Your task to perform on an android device: Open battery settings Image 0: 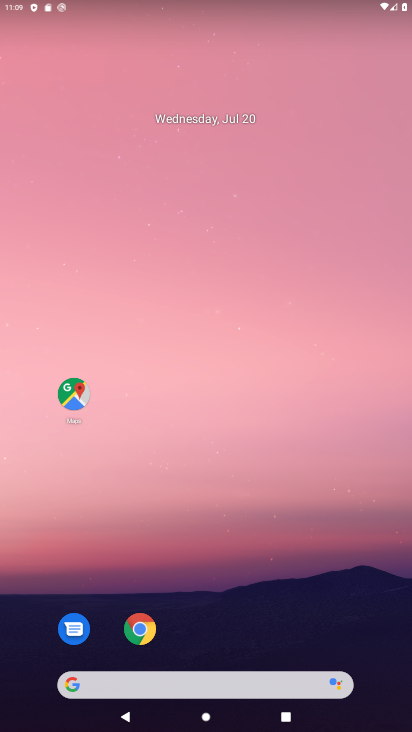
Step 0: drag from (224, 668) to (231, 9)
Your task to perform on an android device: Open battery settings Image 1: 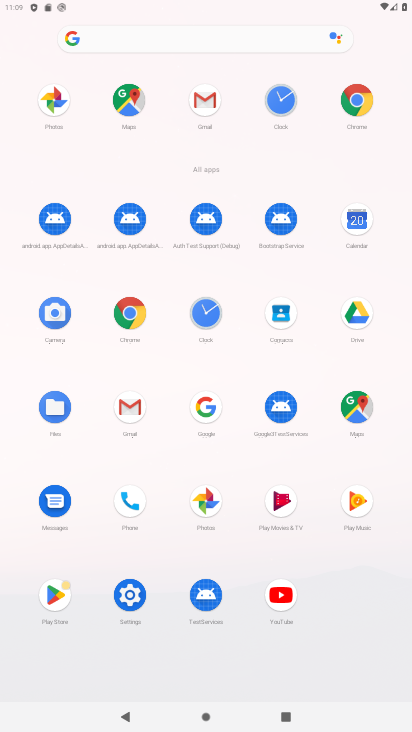
Step 1: click (129, 600)
Your task to perform on an android device: Open battery settings Image 2: 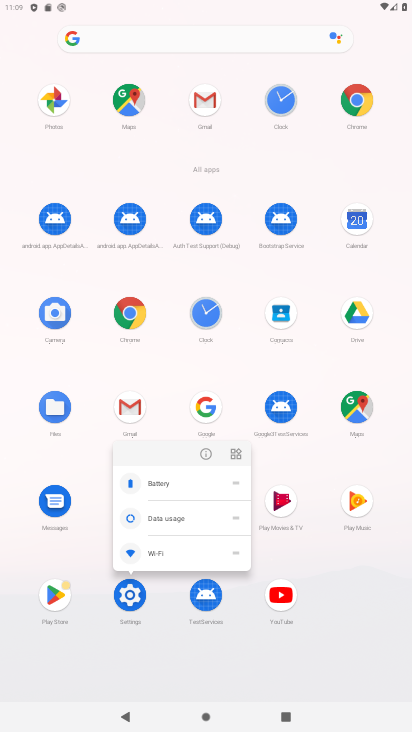
Step 2: click (129, 600)
Your task to perform on an android device: Open battery settings Image 3: 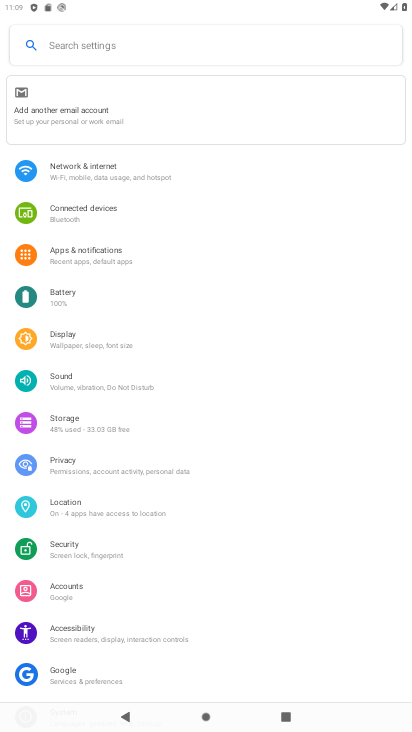
Step 3: click (73, 284)
Your task to perform on an android device: Open battery settings Image 4: 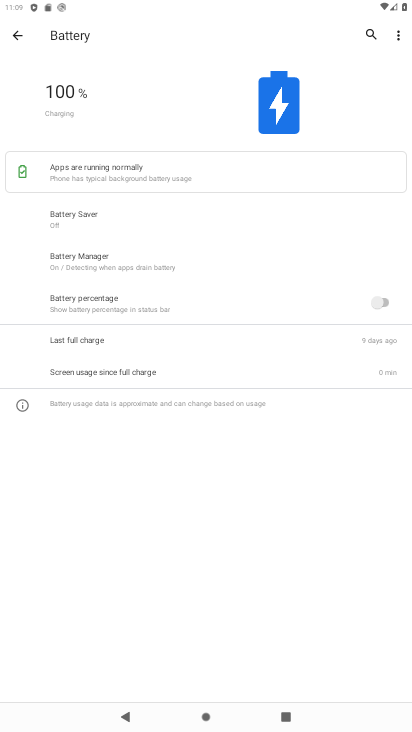
Step 4: task complete